Your task to perform on an android device: find which apps use the phone's location Image 0: 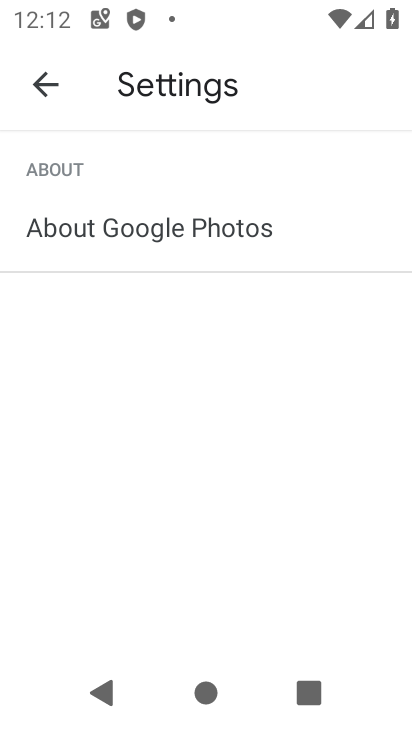
Step 0: press home button
Your task to perform on an android device: find which apps use the phone's location Image 1: 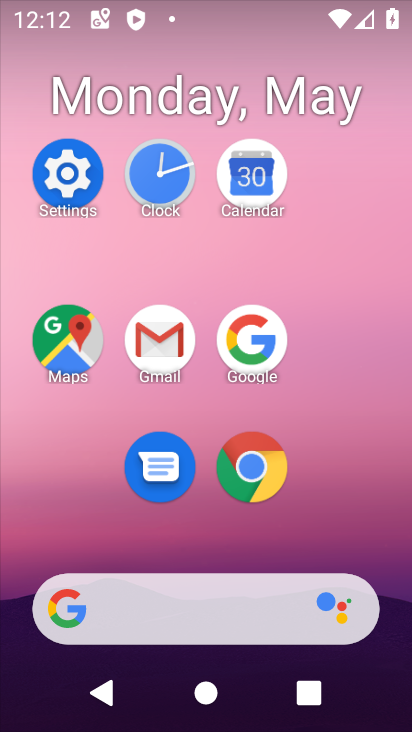
Step 1: click (76, 176)
Your task to perform on an android device: find which apps use the phone's location Image 2: 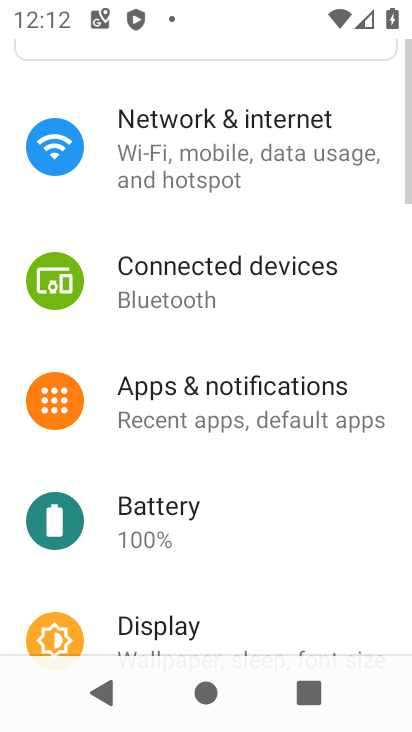
Step 2: drag from (294, 614) to (318, 210)
Your task to perform on an android device: find which apps use the phone's location Image 3: 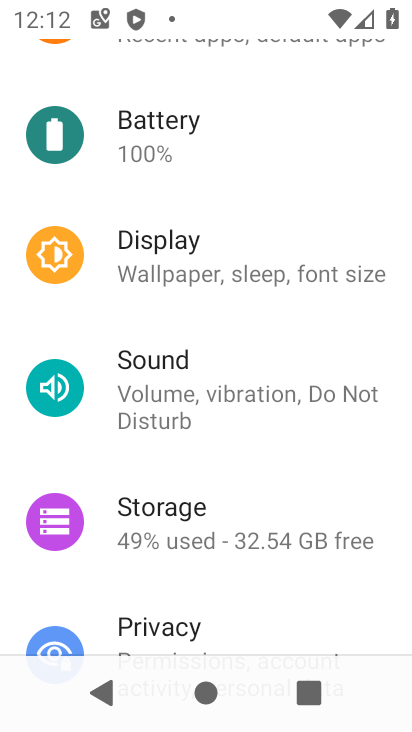
Step 3: drag from (243, 561) to (249, 159)
Your task to perform on an android device: find which apps use the phone's location Image 4: 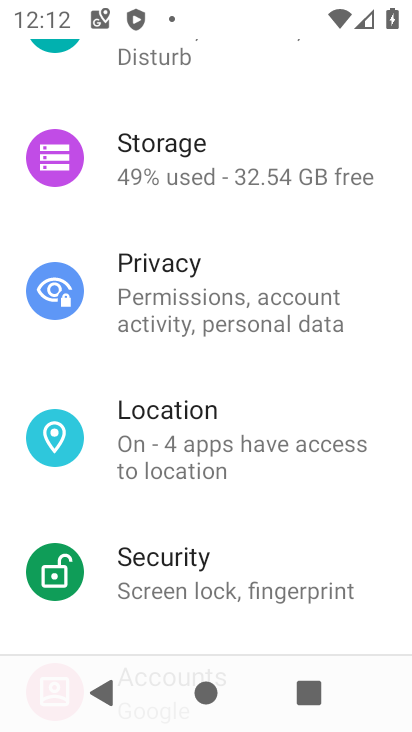
Step 4: click (220, 492)
Your task to perform on an android device: find which apps use the phone's location Image 5: 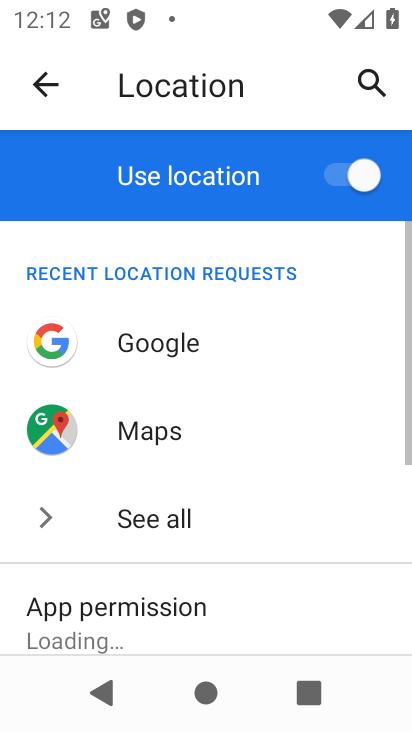
Step 5: task complete